Your task to perform on an android device: Open the Play Movies app and select the watchlist tab. Image 0: 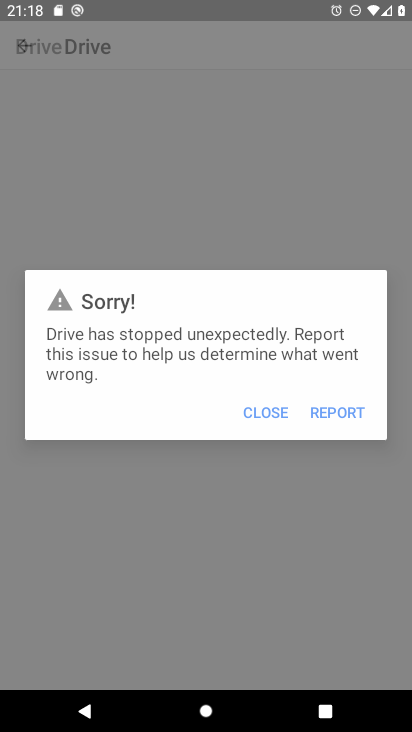
Step 0: drag from (375, 623) to (361, 527)
Your task to perform on an android device: Open the Play Movies app and select the watchlist tab. Image 1: 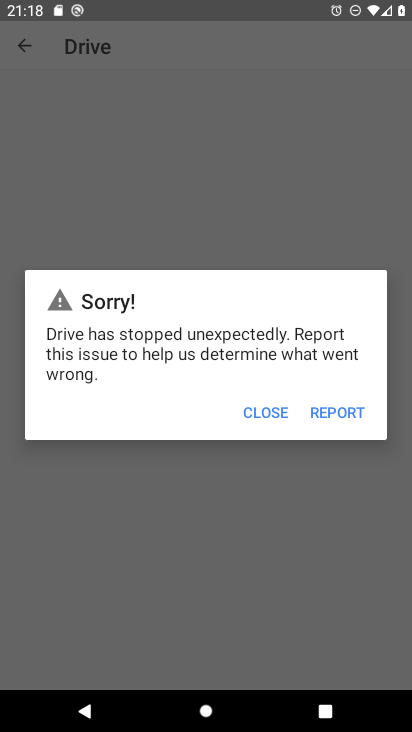
Step 1: press home button
Your task to perform on an android device: Open the Play Movies app and select the watchlist tab. Image 2: 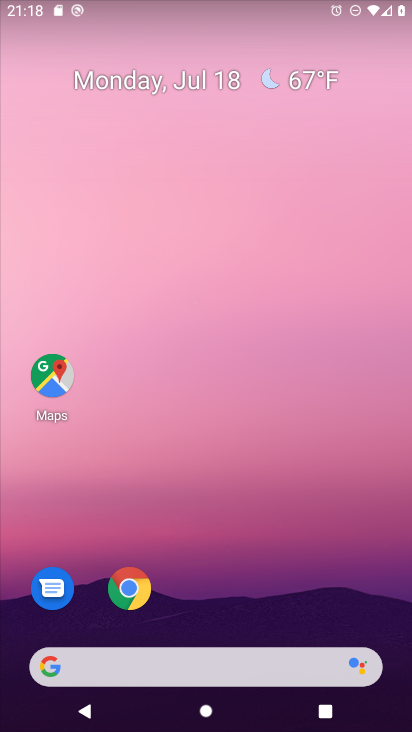
Step 2: drag from (378, 639) to (290, 54)
Your task to perform on an android device: Open the Play Movies app and select the watchlist tab. Image 3: 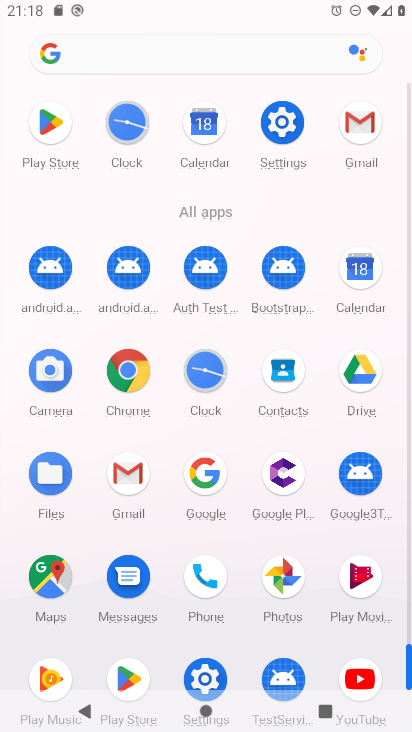
Step 3: click (359, 571)
Your task to perform on an android device: Open the Play Movies app and select the watchlist tab. Image 4: 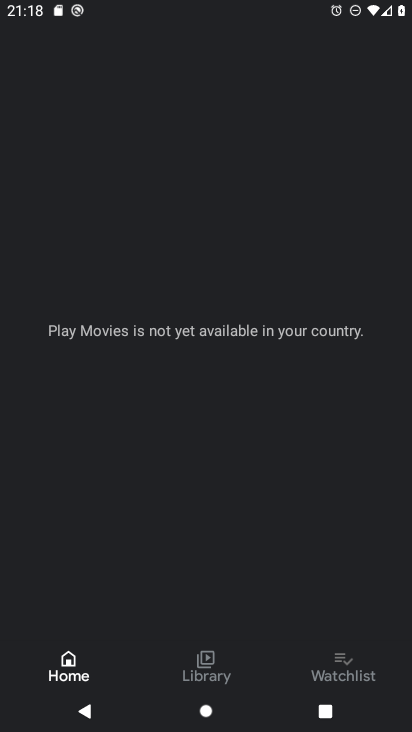
Step 4: click (349, 654)
Your task to perform on an android device: Open the Play Movies app and select the watchlist tab. Image 5: 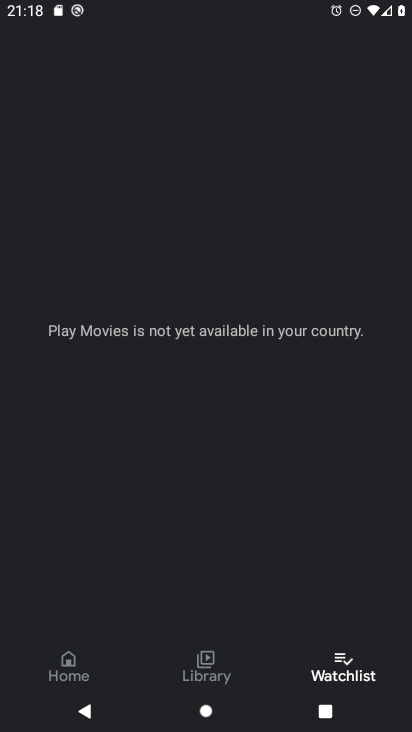
Step 5: task complete